Your task to perform on an android device: toggle data saver in the chrome app Image 0: 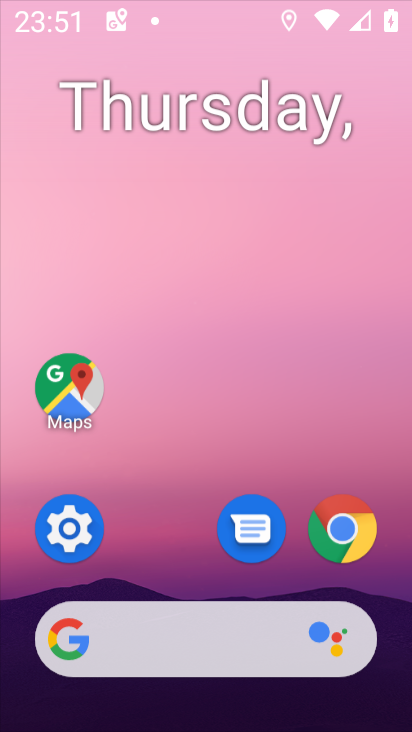
Step 0: click (73, 527)
Your task to perform on an android device: toggle data saver in the chrome app Image 1: 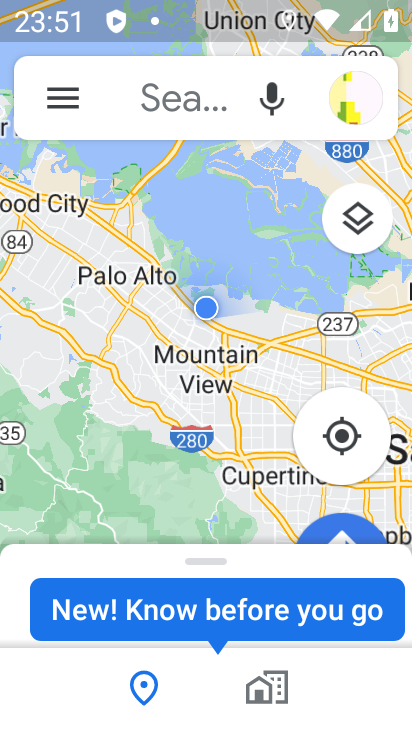
Step 1: press home button
Your task to perform on an android device: toggle data saver in the chrome app Image 2: 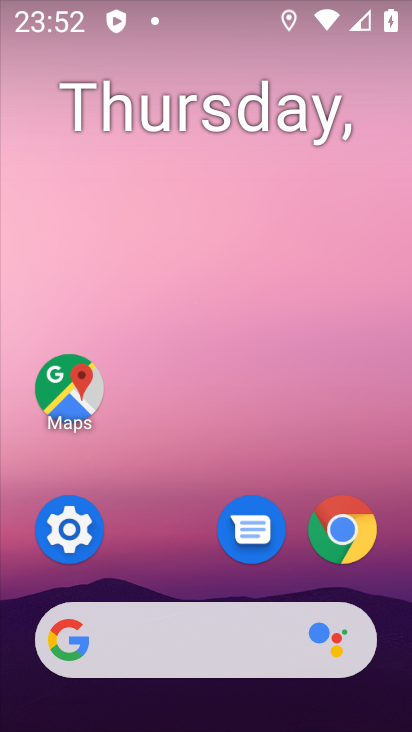
Step 2: click (355, 548)
Your task to perform on an android device: toggle data saver in the chrome app Image 3: 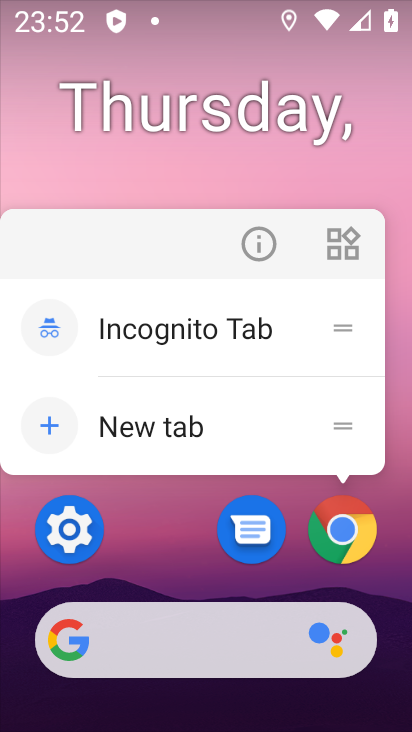
Step 3: click (338, 512)
Your task to perform on an android device: toggle data saver in the chrome app Image 4: 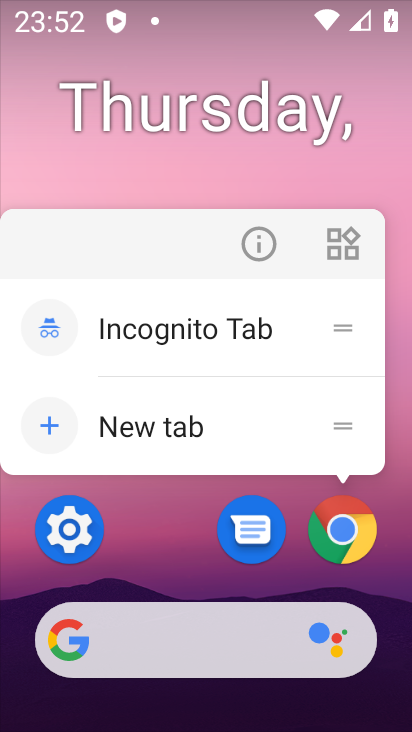
Step 4: click (343, 537)
Your task to perform on an android device: toggle data saver in the chrome app Image 5: 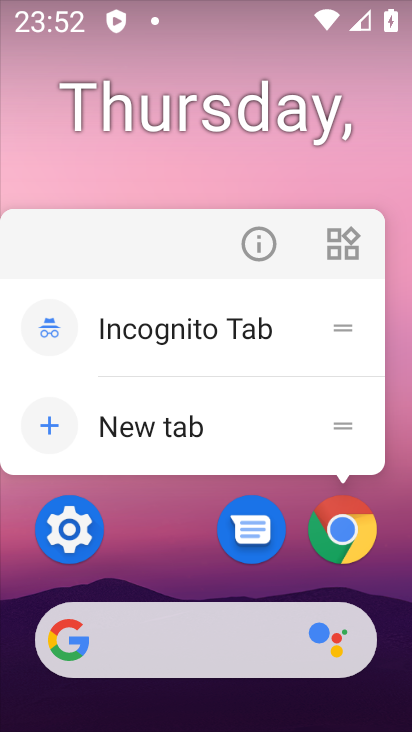
Step 5: click (344, 536)
Your task to perform on an android device: toggle data saver in the chrome app Image 6: 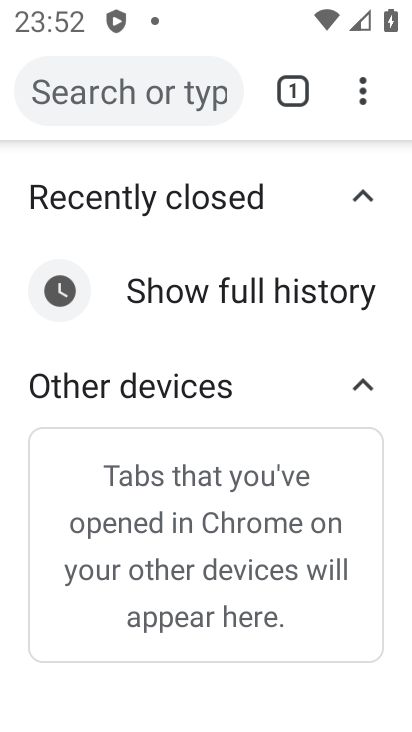
Step 6: click (350, 93)
Your task to perform on an android device: toggle data saver in the chrome app Image 7: 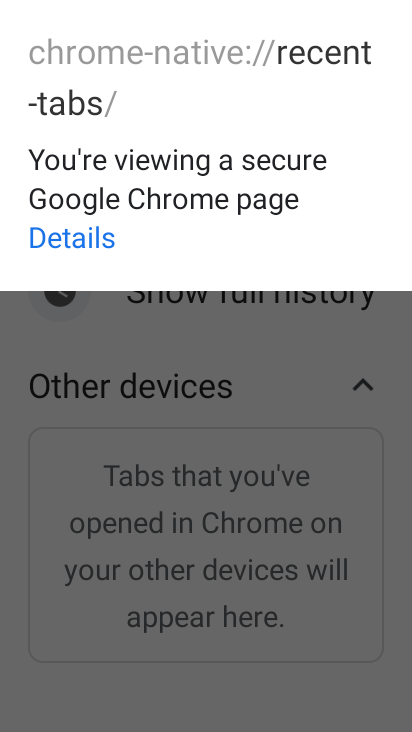
Step 7: click (289, 348)
Your task to perform on an android device: toggle data saver in the chrome app Image 8: 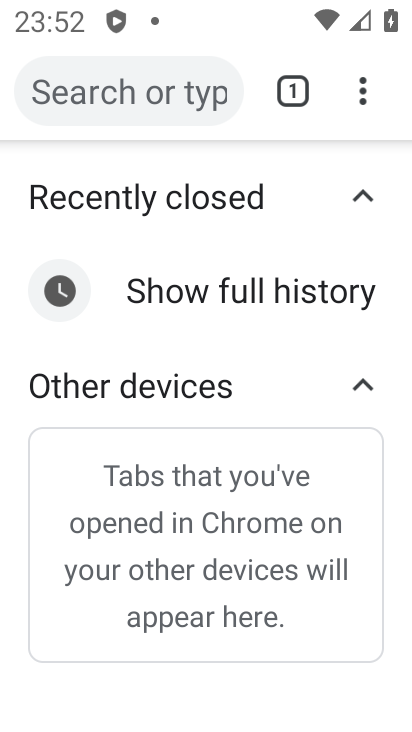
Step 8: click (358, 94)
Your task to perform on an android device: toggle data saver in the chrome app Image 9: 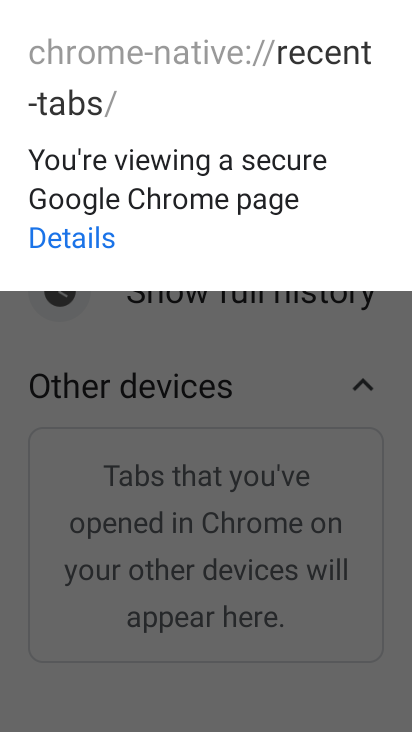
Step 9: click (271, 347)
Your task to perform on an android device: toggle data saver in the chrome app Image 10: 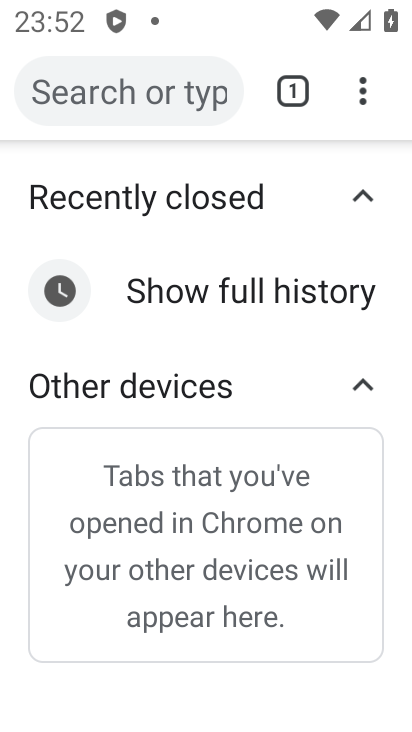
Step 10: click (364, 88)
Your task to perform on an android device: toggle data saver in the chrome app Image 11: 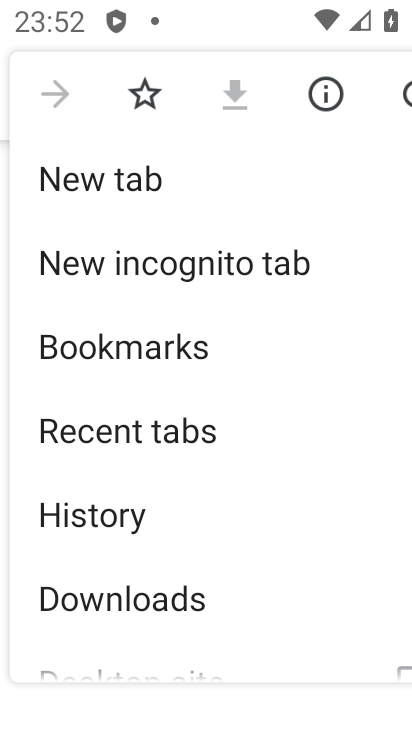
Step 11: drag from (188, 642) to (143, 226)
Your task to perform on an android device: toggle data saver in the chrome app Image 12: 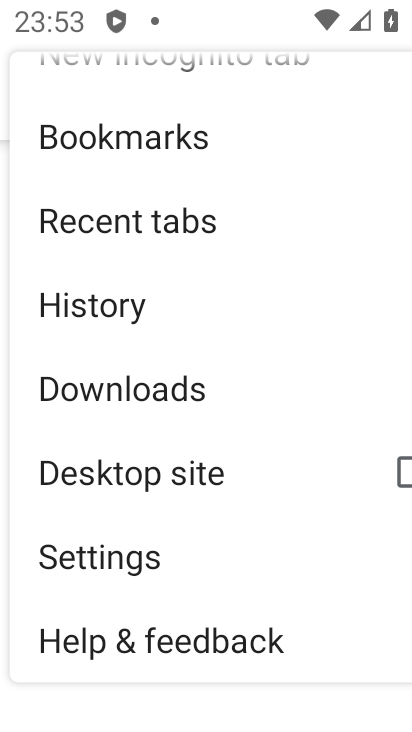
Step 12: click (141, 561)
Your task to perform on an android device: toggle data saver in the chrome app Image 13: 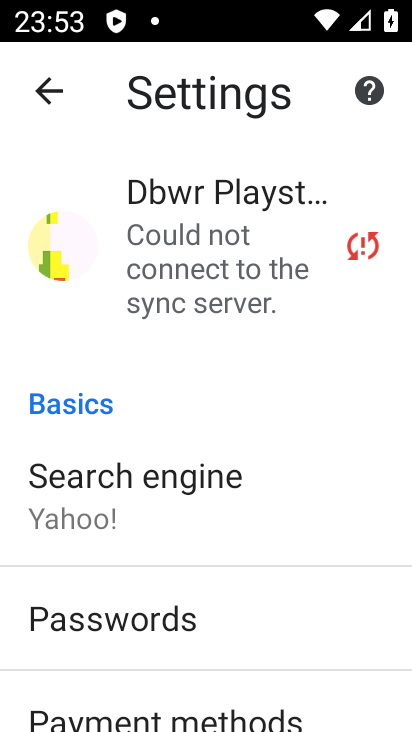
Step 13: drag from (284, 660) to (269, 152)
Your task to perform on an android device: toggle data saver in the chrome app Image 14: 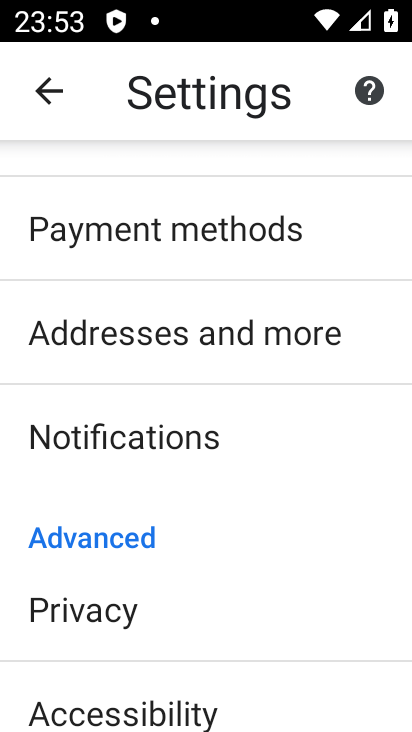
Step 14: drag from (240, 684) to (161, 122)
Your task to perform on an android device: toggle data saver in the chrome app Image 15: 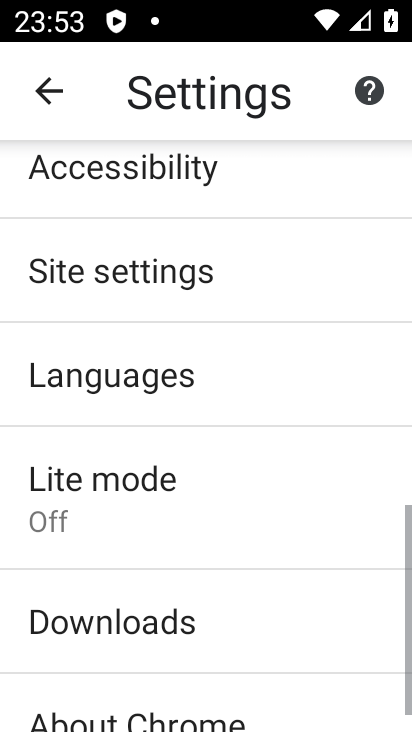
Step 15: click (145, 490)
Your task to perform on an android device: toggle data saver in the chrome app Image 16: 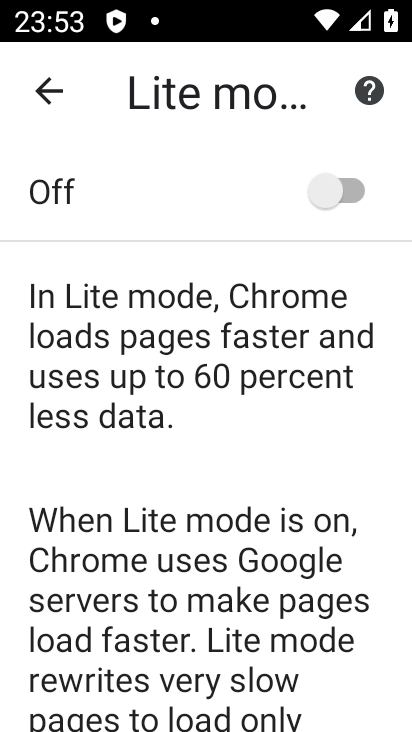
Step 16: click (359, 190)
Your task to perform on an android device: toggle data saver in the chrome app Image 17: 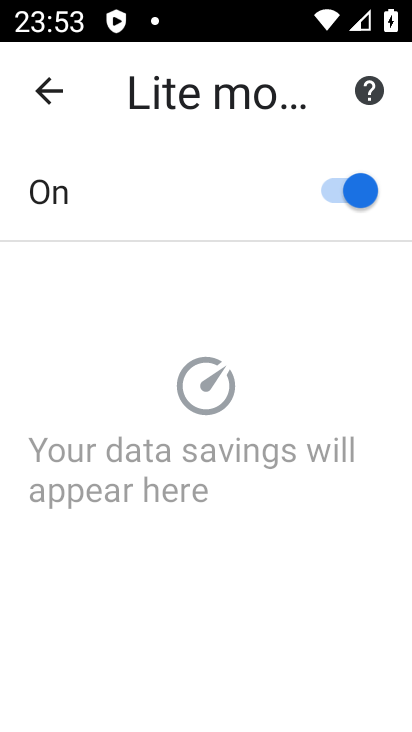
Step 17: task complete